Your task to perform on an android device: create a new album in the google photos Image 0: 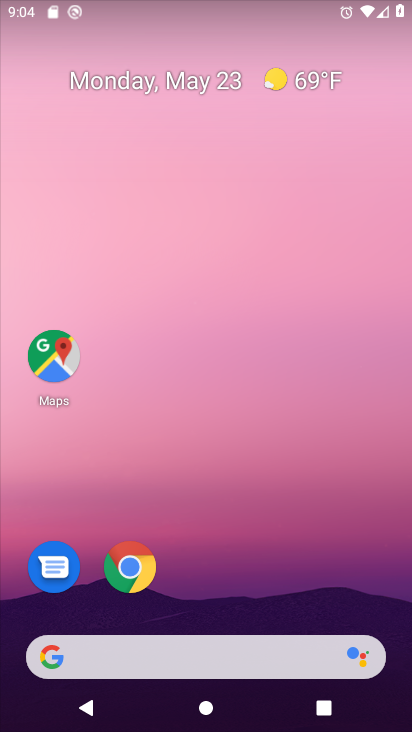
Step 0: drag from (221, 604) to (294, 74)
Your task to perform on an android device: create a new album in the google photos Image 1: 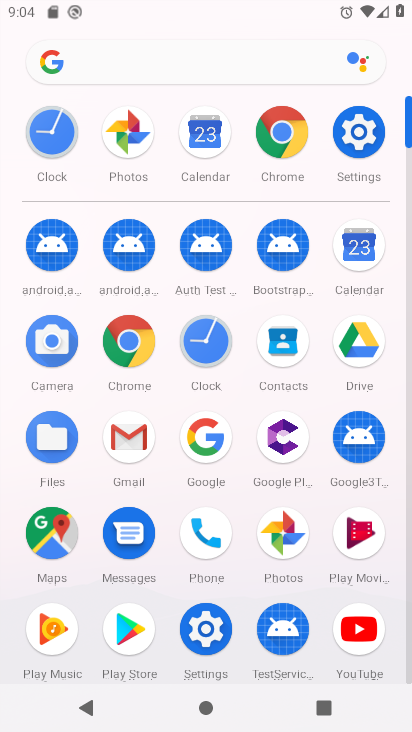
Step 1: click (276, 544)
Your task to perform on an android device: create a new album in the google photos Image 2: 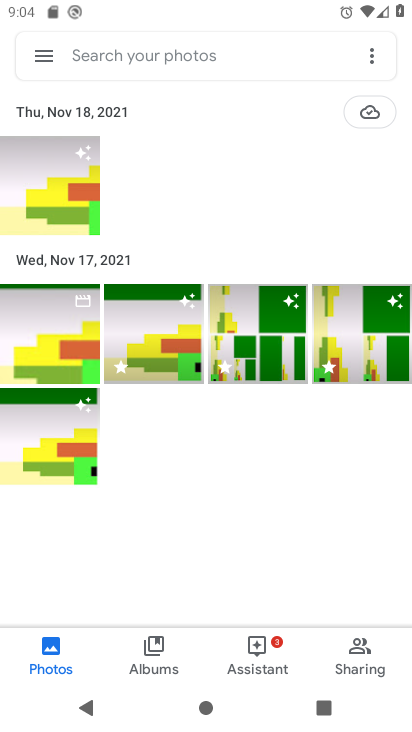
Step 2: click (159, 648)
Your task to perform on an android device: create a new album in the google photos Image 3: 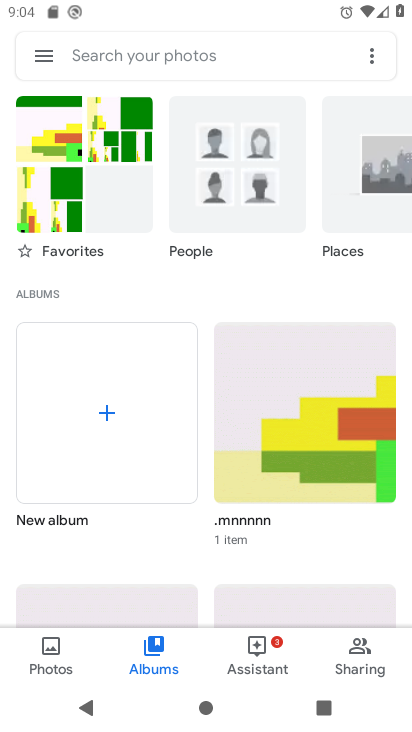
Step 3: click (106, 403)
Your task to perform on an android device: create a new album in the google photos Image 4: 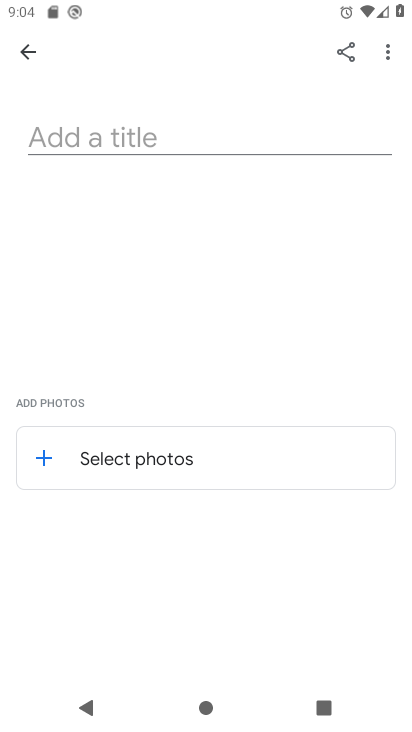
Step 4: click (224, 150)
Your task to perform on an android device: create a new album in the google photos Image 5: 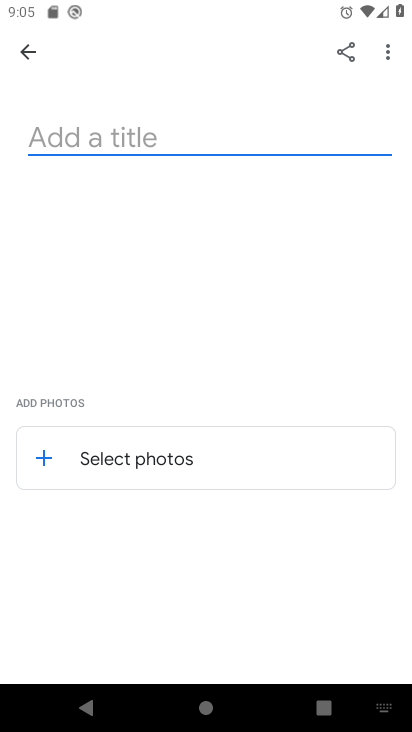
Step 5: type "victos"
Your task to perform on an android device: create a new album in the google photos Image 6: 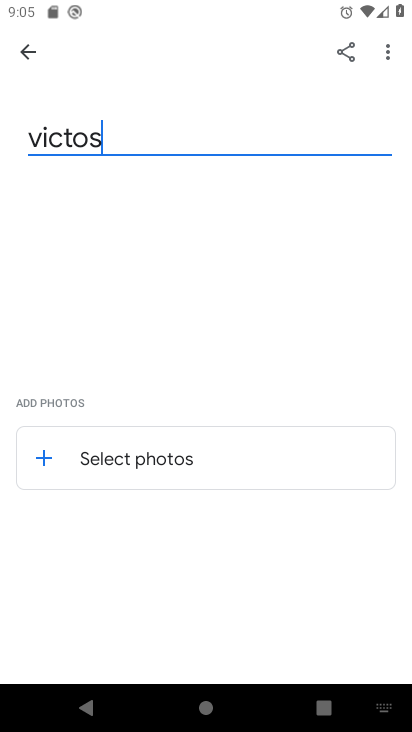
Step 6: click (37, 461)
Your task to perform on an android device: create a new album in the google photos Image 7: 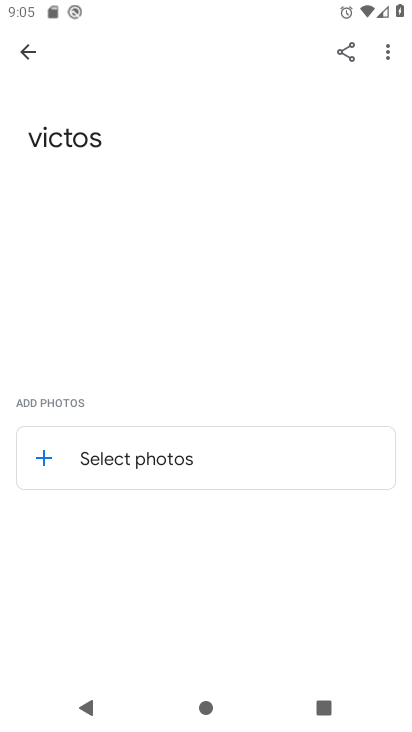
Step 7: click (41, 462)
Your task to perform on an android device: create a new album in the google photos Image 8: 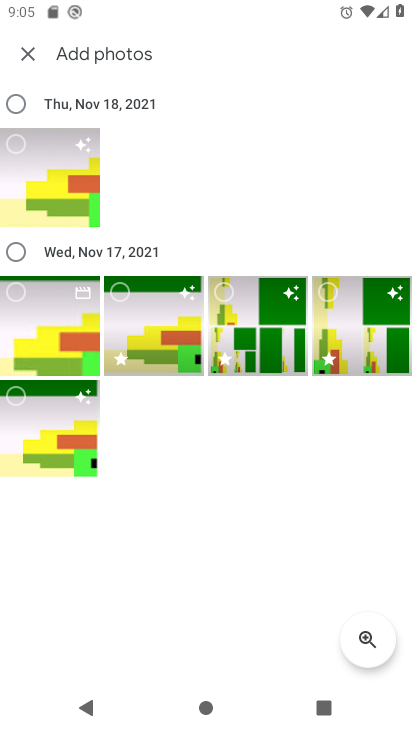
Step 8: click (166, 290)
Your task to perform on an android device: create a new album in the google photos Image 9: 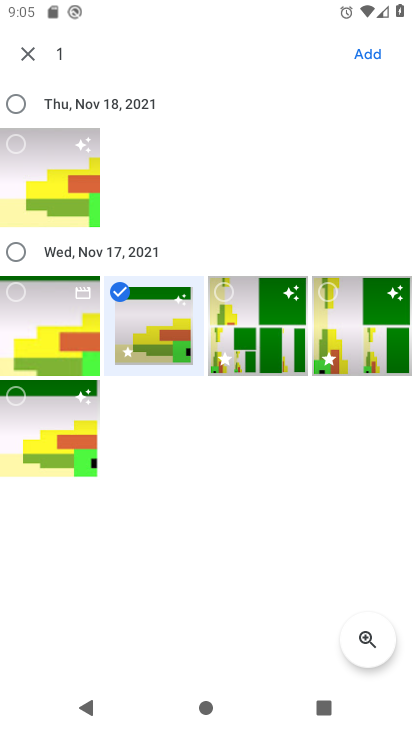
Step 9: click (77, 160)
Your task to perform on an android device: create a new album in the google photos Image 10: 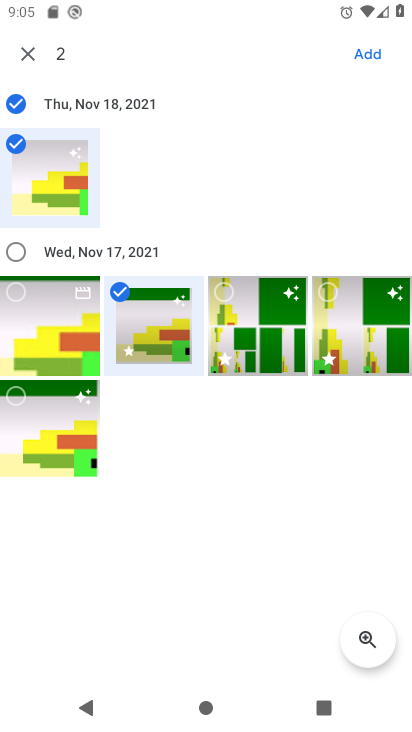
Step 10: click (57, 421)
Your task to perform on an android device: create a new album in the google photos Image 11: 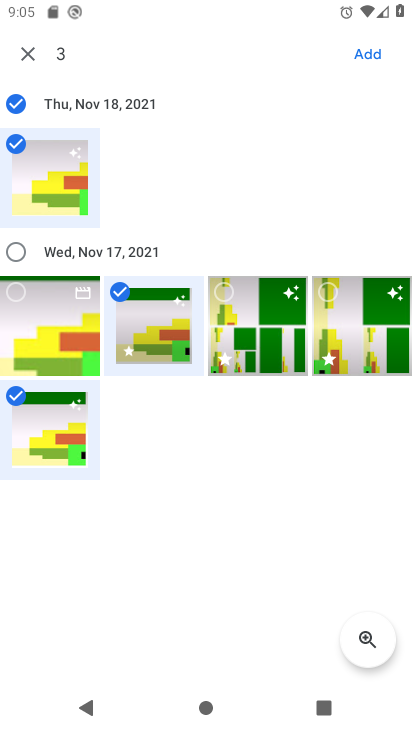
Step 11: click (237, 278)
Your task to perform on an android device: create a new album in the google photos Image 12: 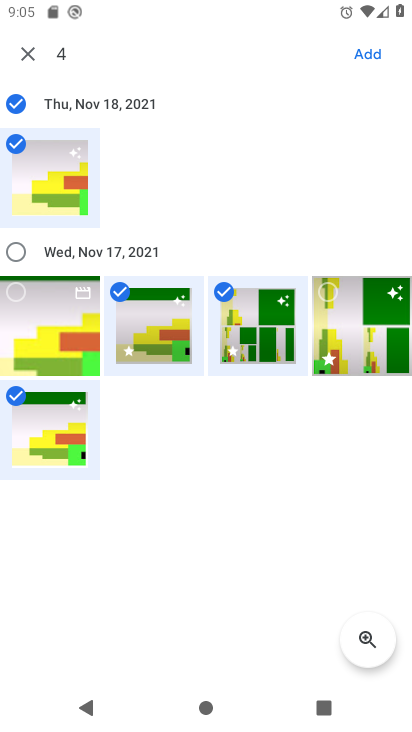
Step 12: click (361, 54)
Your task to perform on an android device: create a new album in the google photos Image 13: 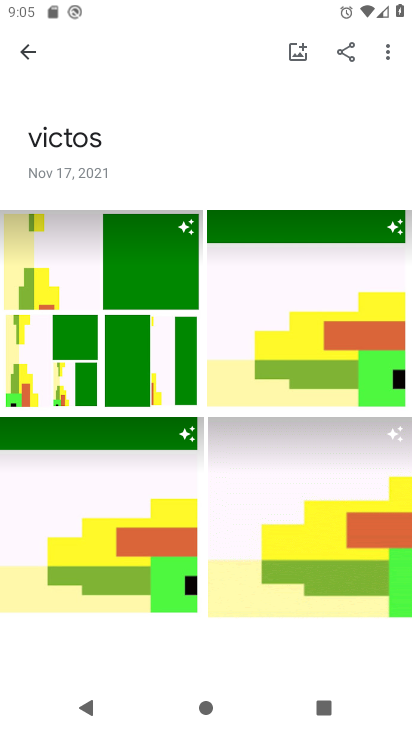
Step 13: task complete